Your task to perform on an android device: What's on my calendar tomorrow? Image 0: 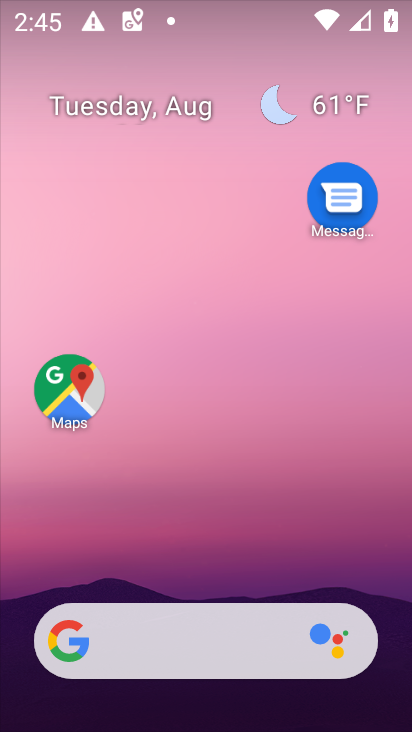
Step 0: drag from (230, 599) to (183, 72)
Your task to perform on an android device: What's on my calendar tomorrow? Image 1: 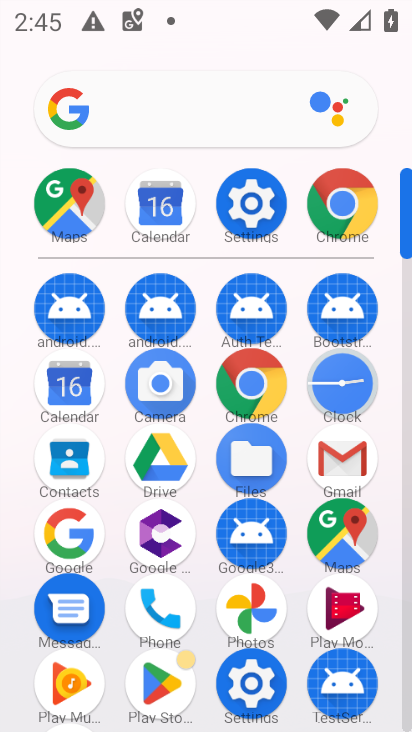
Step 1: click (147, 244)
Your task to perform on an android device: What's on my calendar tomorrow? Image 2: 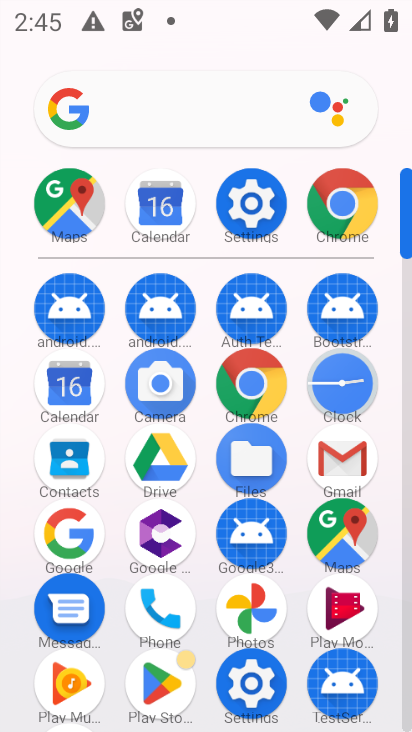
Step 2: click (147, 222)
Your task to perform on an android device: What's on my calendar tomorrow? Image 3: 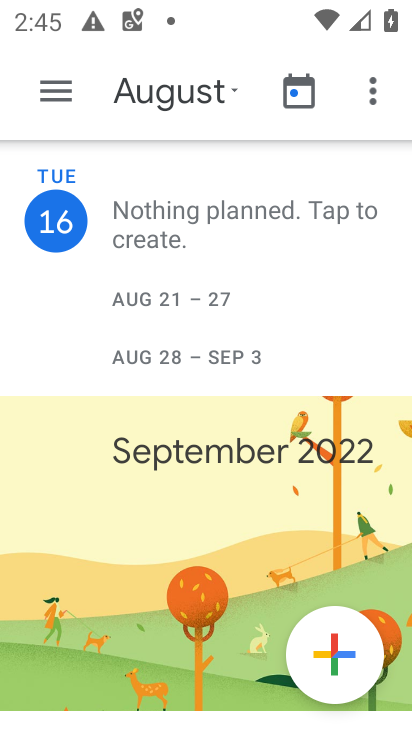
Step 3: task complete